Your task to perform on an android device: turn on notifications settings in the gmail app Image 0: 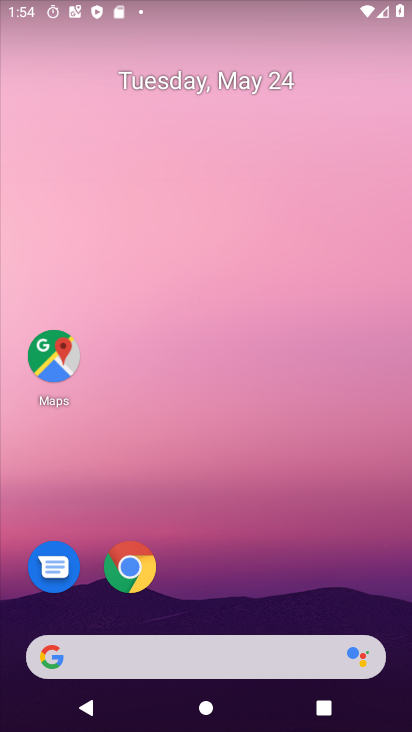
Step 0: drag from (212, 619) to (310, 8)
Your task to perform on an android device: turn on notifications settings in the gmail app Image 1: 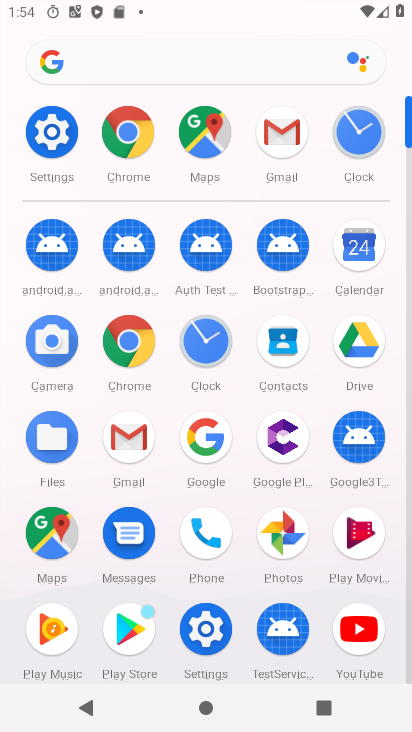
Step 1: click (134, 451)
Your task to perform on an android device: turn on notifications settings in the gmail app Image 2: 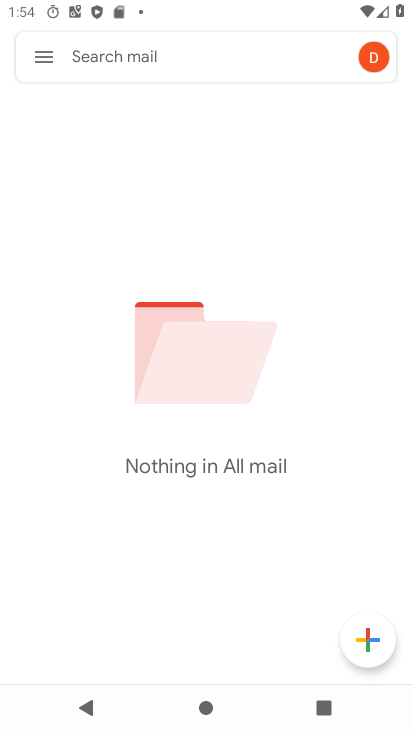
Step 2: click (52, 60)
Your task to perform on an android device: turn on notifications settings in the gmail app Image 3: 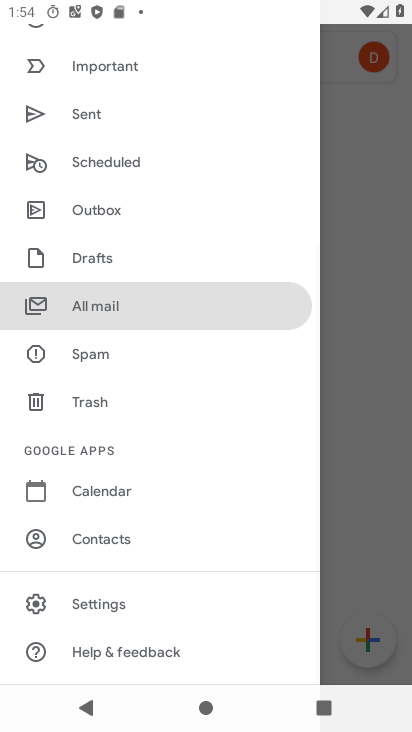
Step 3: click (126, 607)
Your task to perform on an android device: turn on notifications settings in the gmail app Image 4: 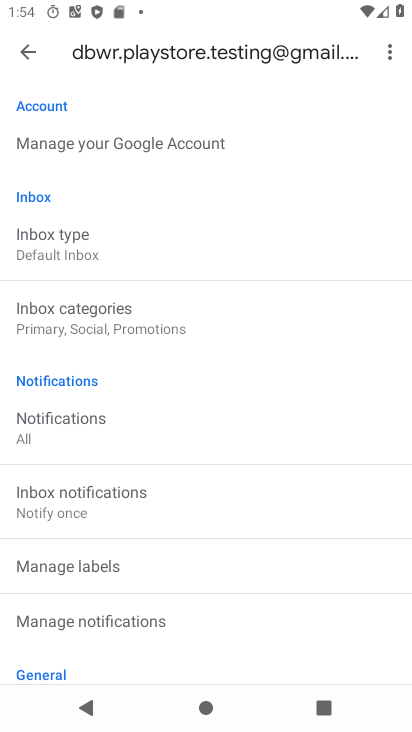
Step 4: drag from (133, 582) to (306, 22)
Your task to perform on an android device: turn on notifications settings in the gmail app Image 5: 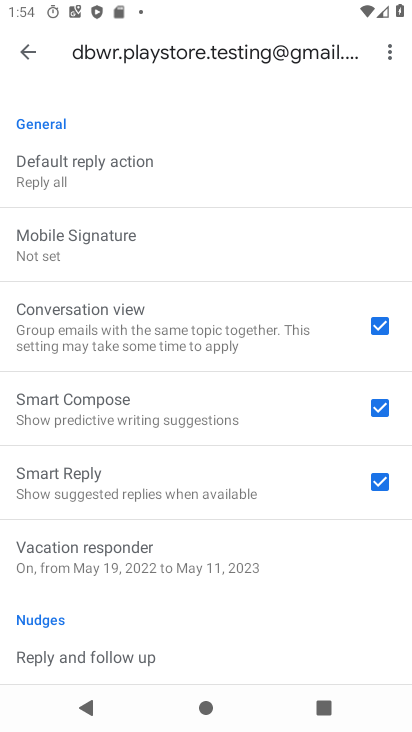
Step 5: click (31, 54)
Your task to perform on an android device: turn on notifications settings in the gmail app Image 6: 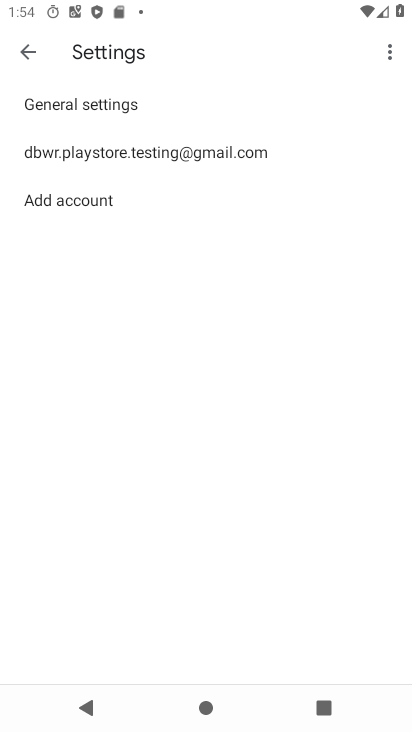
Step 6: click (98, 103)
Your task to perform on an android device: turn on notifications settings in the gmail app Image 7: 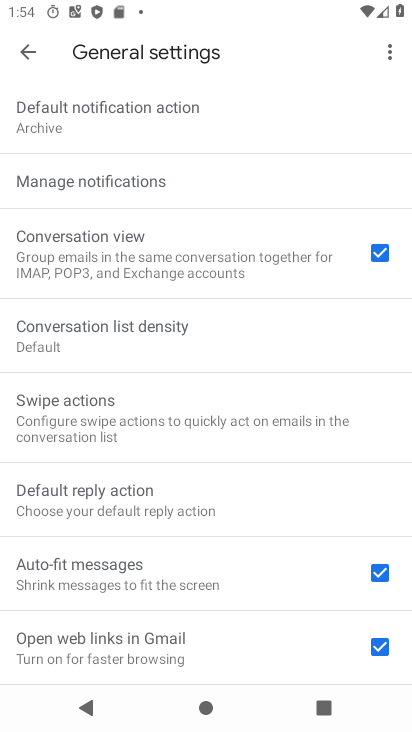
Step 7: click (87, 185)
Your task to perform on an android device: turn on notifications settings in the gmail app Image 8: 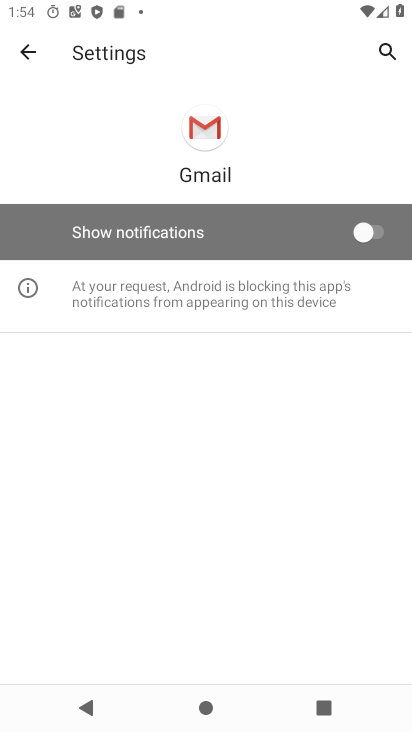
Step 8: click (379, 233)
Your task to perform on an android device: turn on notifications settings in the gmail app Image 9: 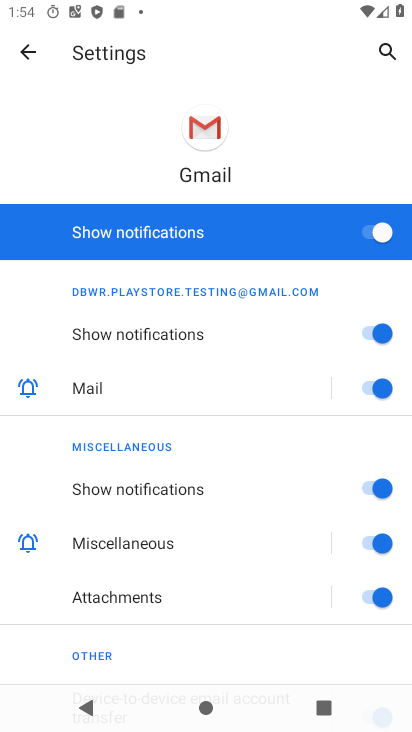
Step 9: task complete